Your task to perform on an android device: turn off smart reply in the gmail app Image 0: 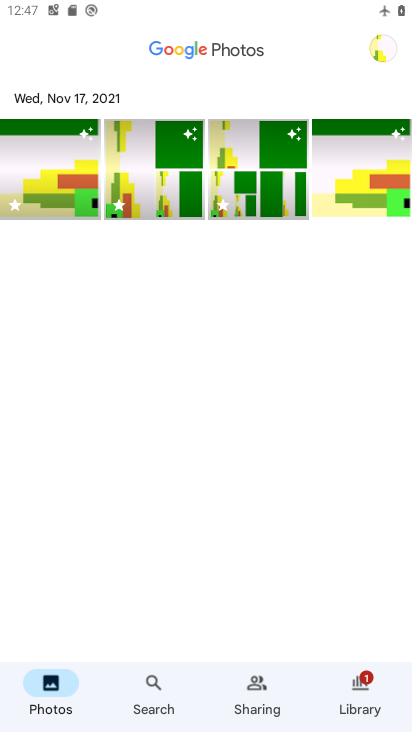
Step 0: press home button
Your task to perform on an android device: turn off smart reply in the gmail app Image 1: 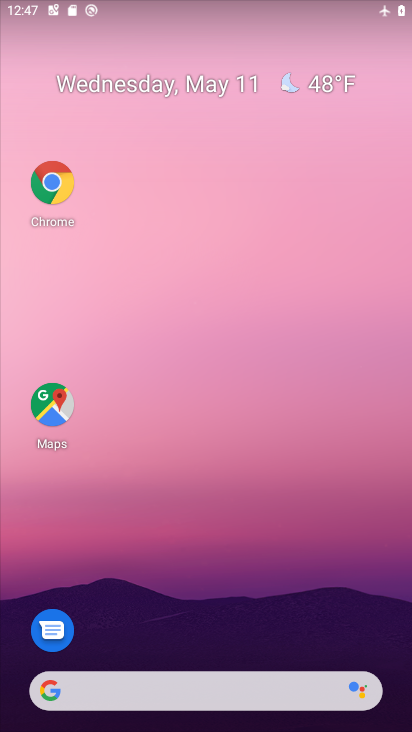
Step 1: drag from (221, 667) to (103, 0)
Your task to perform on an android device: turn off smart reply in the gmail app Image 2: 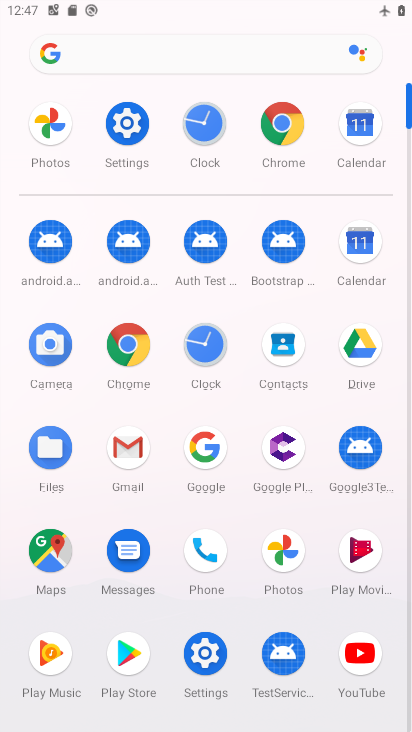
Step 2: click (144, 450)
Your task to perform on an android device: turn off smart reply in the gmail app Image 3: 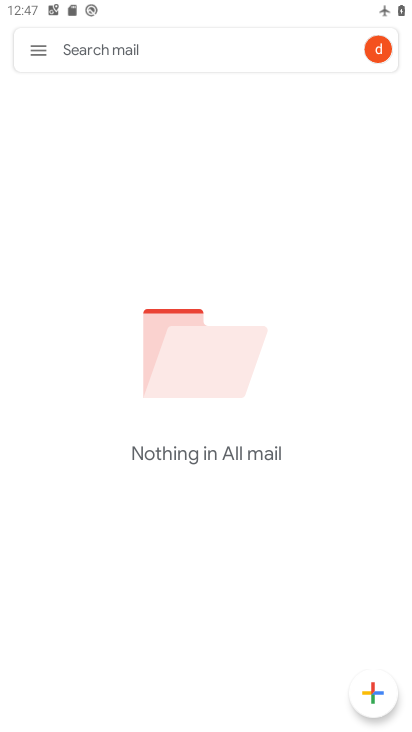
Step 3: click (38, 42)
Your task to perform on an android device: turn off smart reply in the gmail app Image 4: 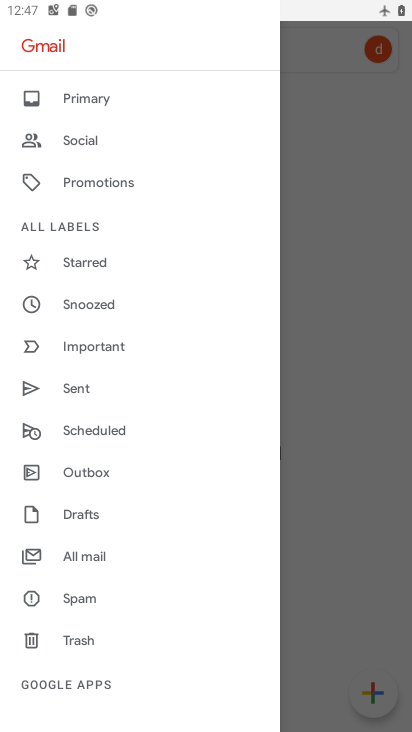
Step 4: drag from (83, 627) to (95, 86)
Your task to perform on an android device: turn off smart reply in the gmail app Image 5: 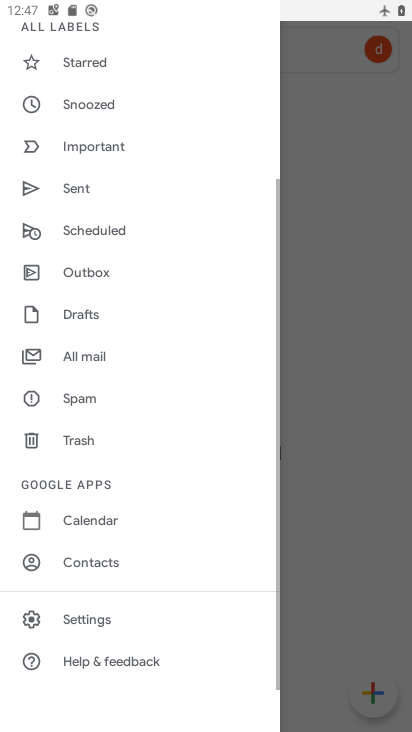
Step 5: click (98, 618)
Your task to perform on an android device: turn off smart reply in the gmail app Image 6: 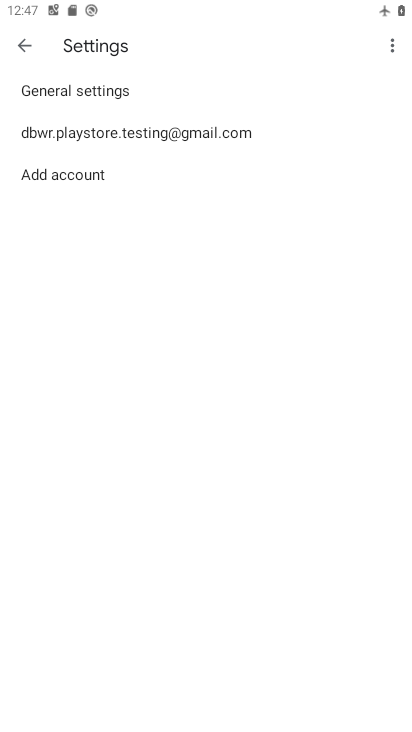
Step 6: click (86, 127)
Your task to perform on an android device: turn off smart reply in the gmail app Image 7: 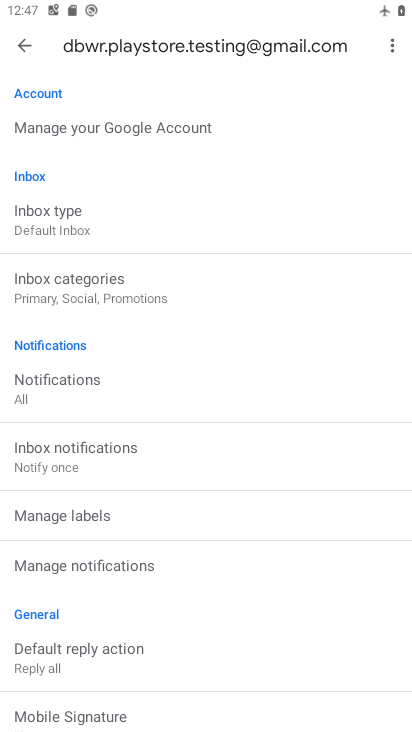
Step 7: drag from (134, 563) to (104, 56)
Your task to perform on an android device: turn off smart reply in the gmail app Image 8: 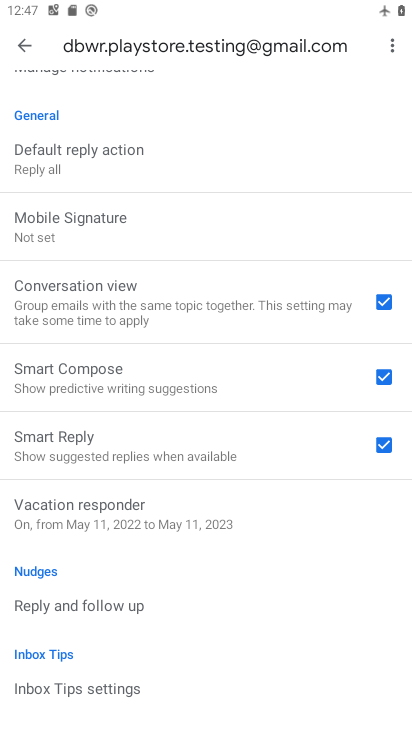
Step 8: click (382, 452)
Your task to perform on an android device: turn off smart reply in the gmail app Image 9: 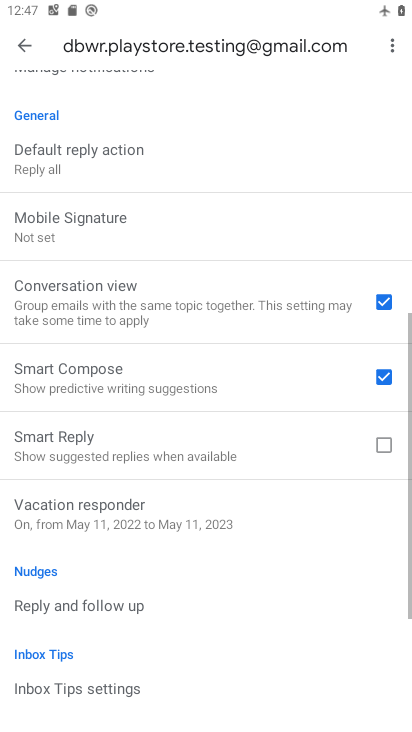
Step 9: task complete